Your task to perform on an android device: find snoozed emails in the gmail app Image 0: 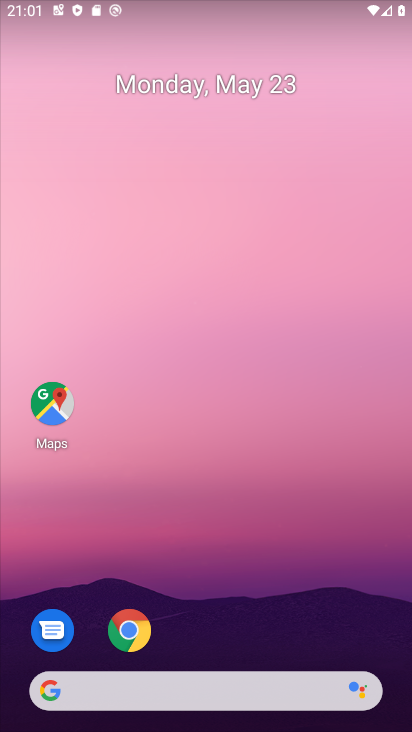
Step 0: drag from (200, 667) to (258, 203)
Your task to perform on an android device: find snoozed emails in the gmail app Image 1: 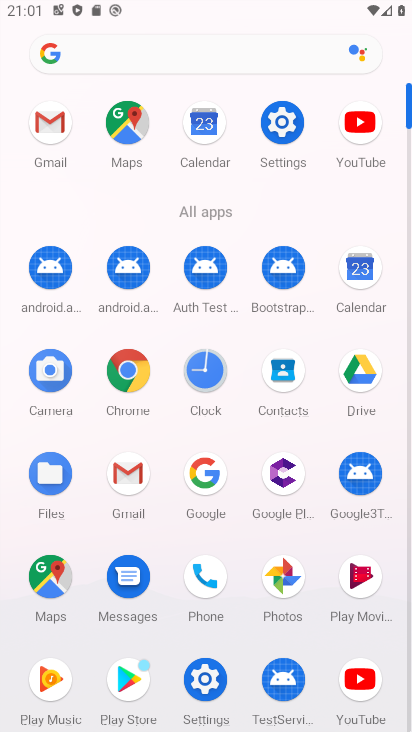
Step 1: click (46, 131)
Your task to perform on an android device: find snoozed emails in the gmail app Image 2: 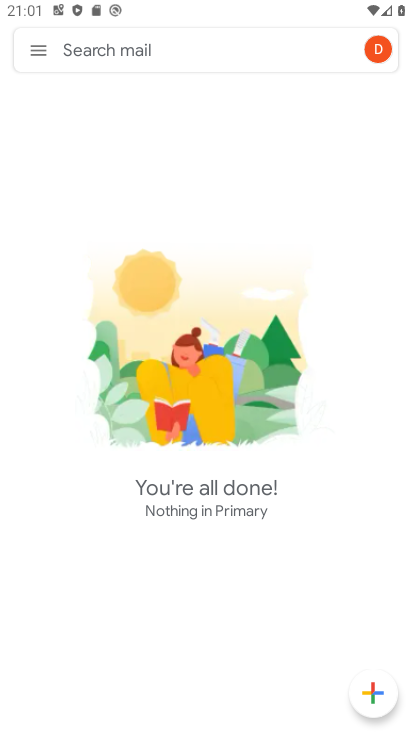
Step 2: click (40, 55)
Your task to perform on an android device: find snoozed emails in the gmail app Image 3: 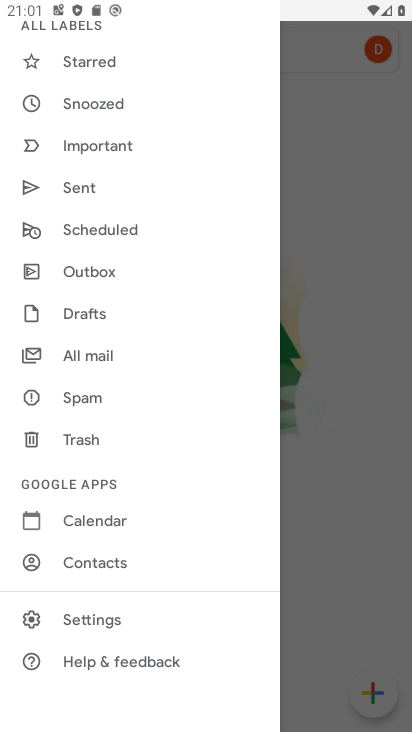
Step 3: click (97, 110)
Your task to perform on an android device: find snoozed emails in the gmail app Image 4: 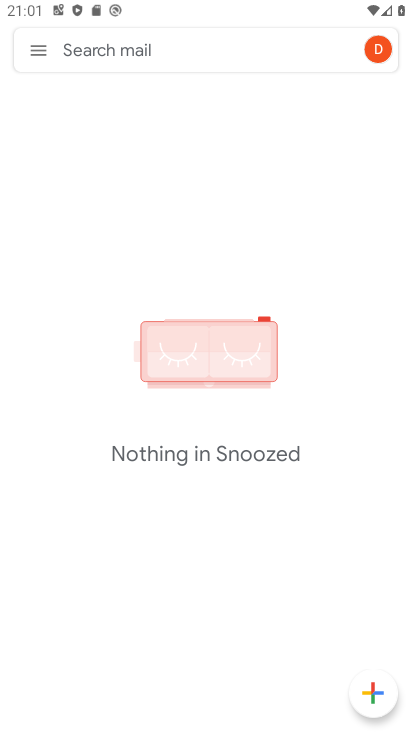
Step 4: task complete